Your task to perform on an android device: toggle wifi Image 0: 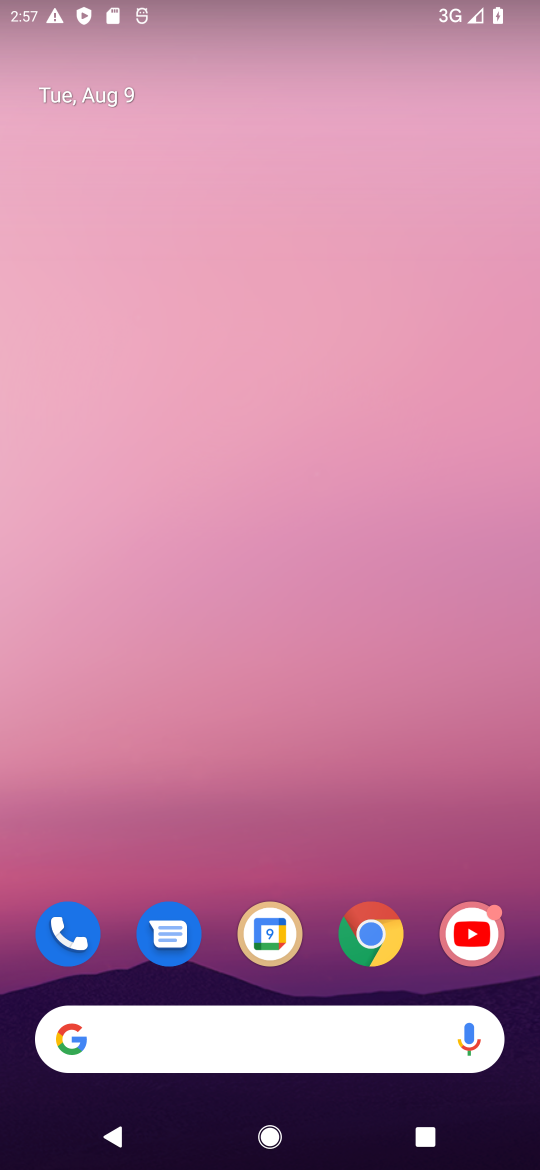
Step 0: drag from (335, 984) to (309, 76)
Your task to perform on an android device: toggle wifi Image 1: 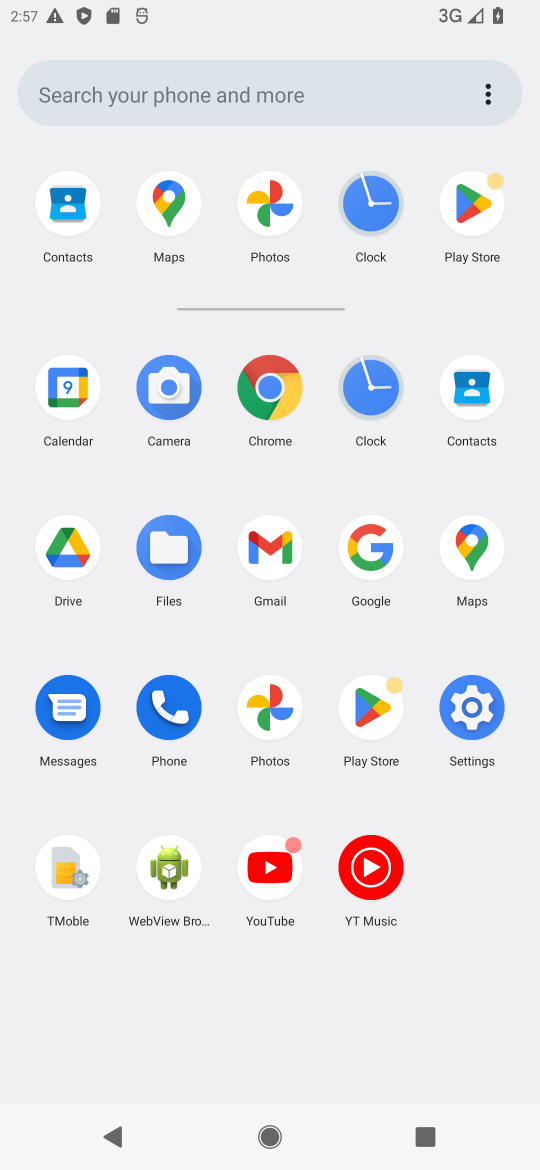
Step 1: click (475, 744)
Your task to perform on an android device: toggle wifi Image 2: 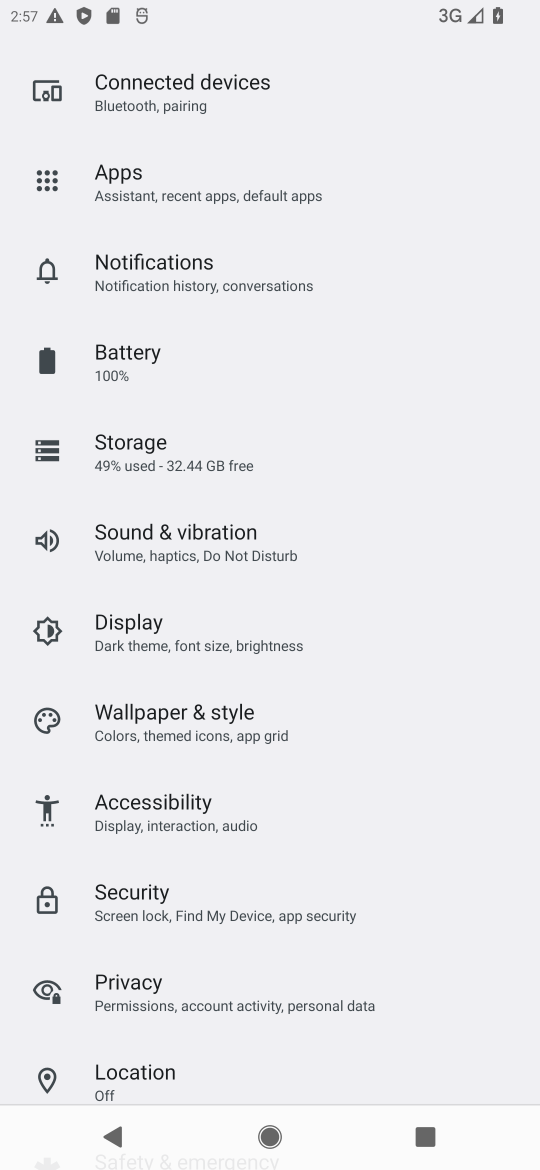
Step 2: drag from (275, 189) to (322, 1031)
Your task to perform on an android device: toggle wifi Image 3: 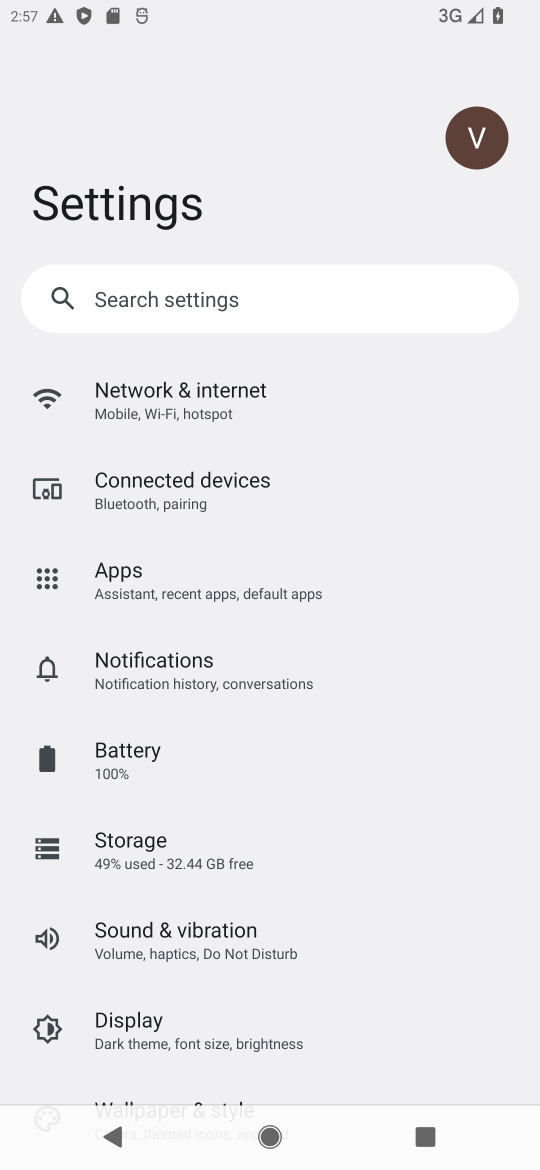
Step 3: click (368, 415)
Your task to perform on an android device: toggle wifi Image 4: 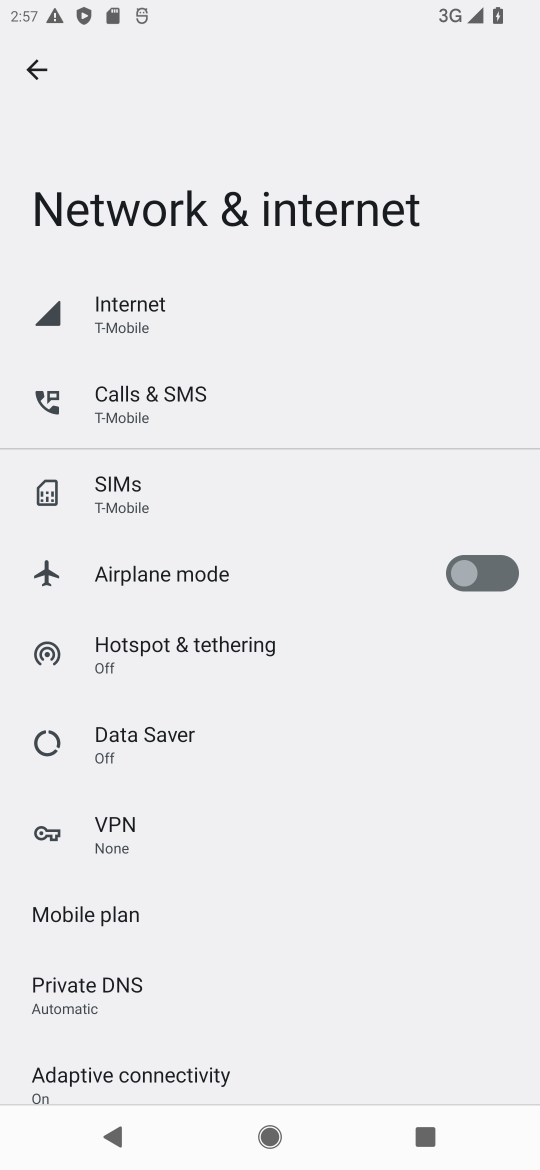
Step 4: task complete